Your task to perform on an android device: Open Yahoo.com Image 0: 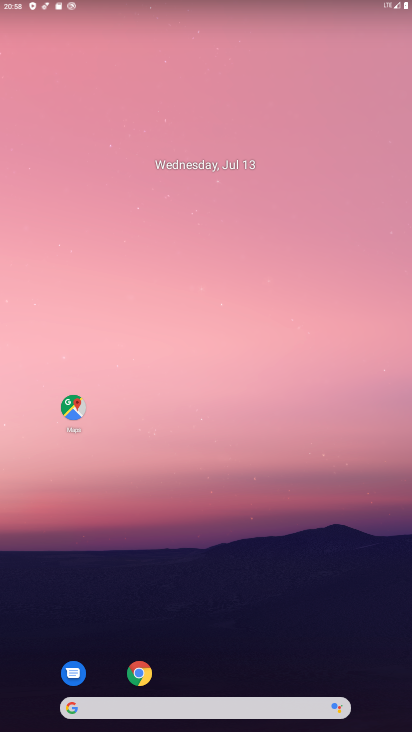
Step 0: drag from (181, 601) to (206, 100)
Your task to perform on an android device: Open Yahoo.com Image 1: 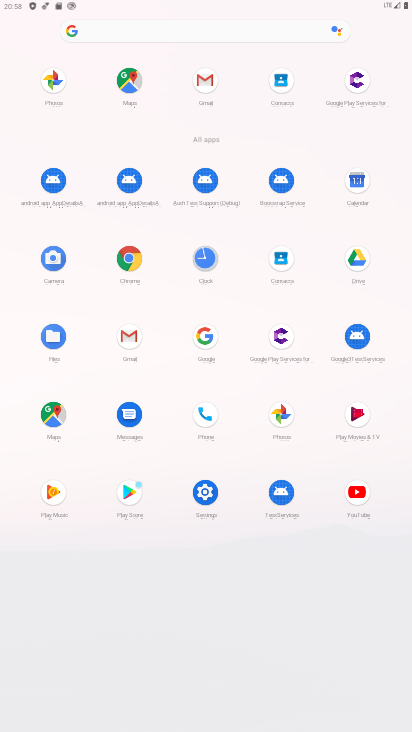
Step 1: drag from (246, 613) to (209, 300)
Your task to perform on an android device: Open Yahoo.com Image 2: 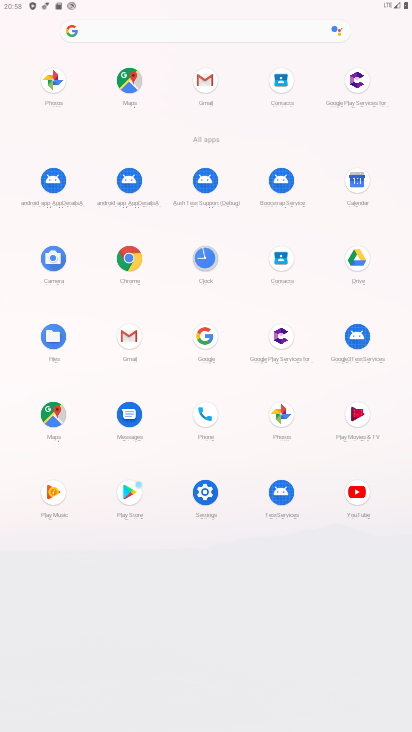
Step 2: drag from (227, 584) to (225, 251)
Your task to perform on an android device: Open Yahoo.com Image 3: 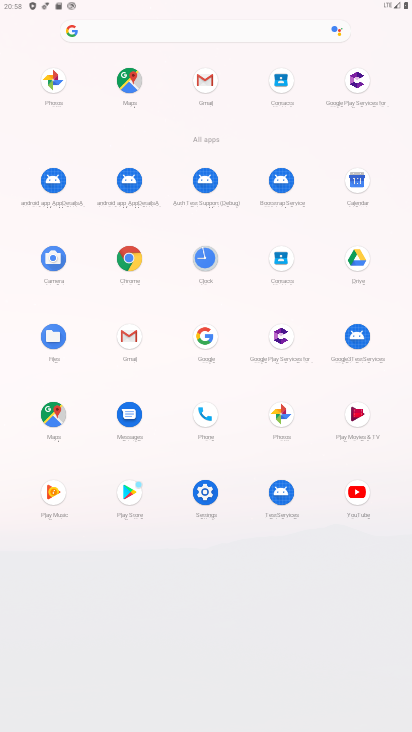
Step 3: click (231, 26)
Your task to perform on an android device: Open Yahoo.com Image 4: 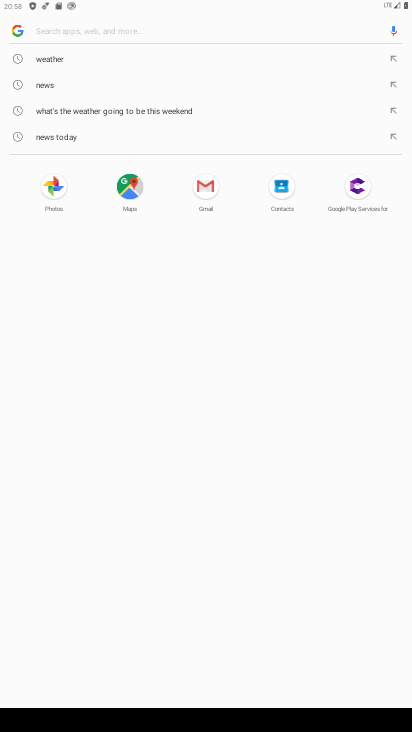
Step 4: click (83, 32)
Your task to perform on an android device: Open Yahoo.com Image 5: 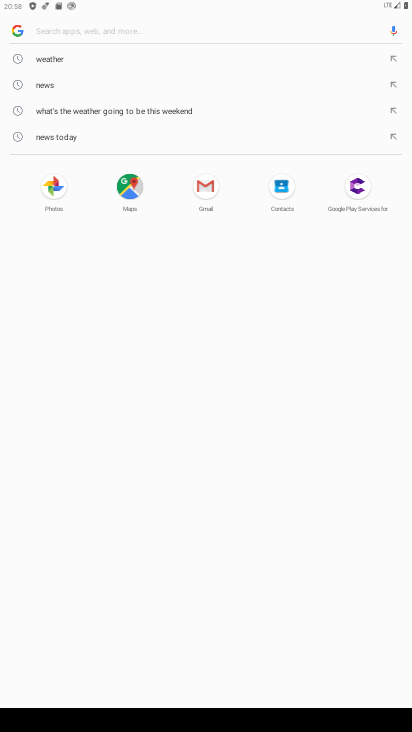
Step 5: type "Yahoo.com"
Your task to perform on an android device: Open Yahoo.com Image 6: 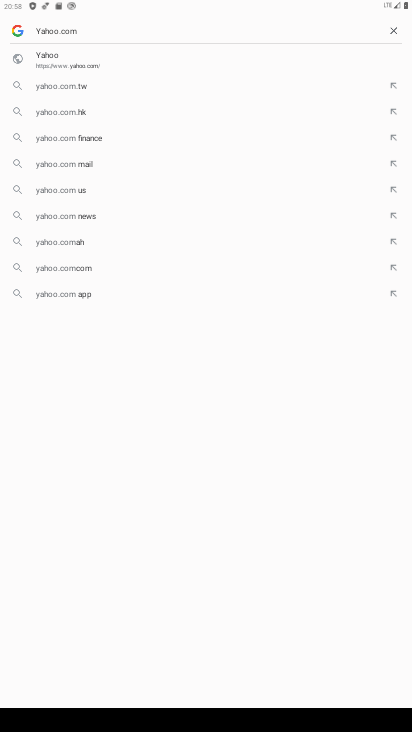
Step 6: click (93, 66)
Your task to perform on an android device: Open Yahoo.com Image 7: 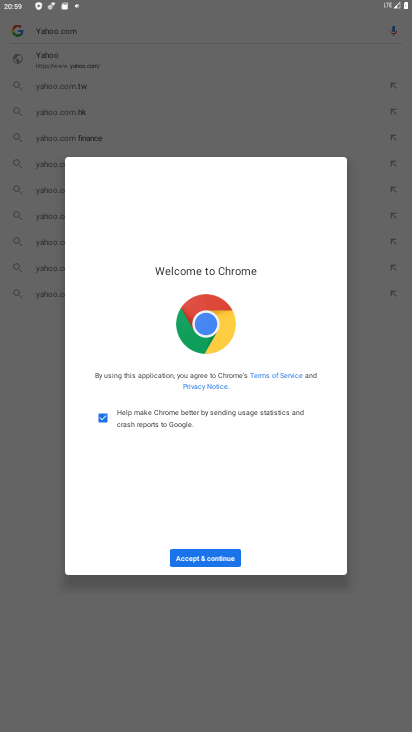
Step 7: drag from (224, 462) to (325, 179)
Your task to perform on an android device: Open Yahoo.com Image 8: 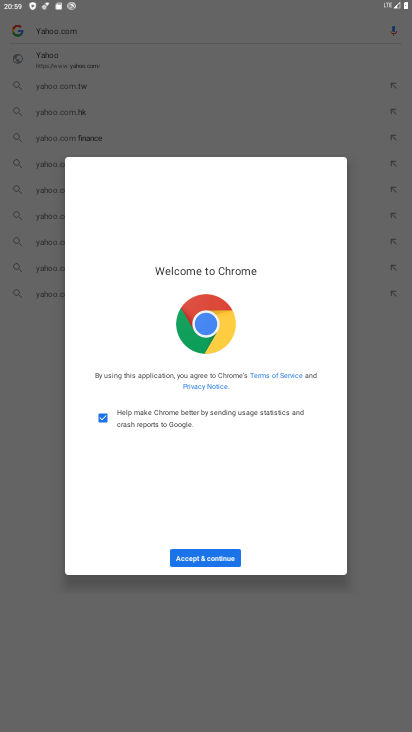
Step 8: drag from (186, 482) to (221, 365)
Your task to perform on an android device: Open Yahoo.com Image 9: 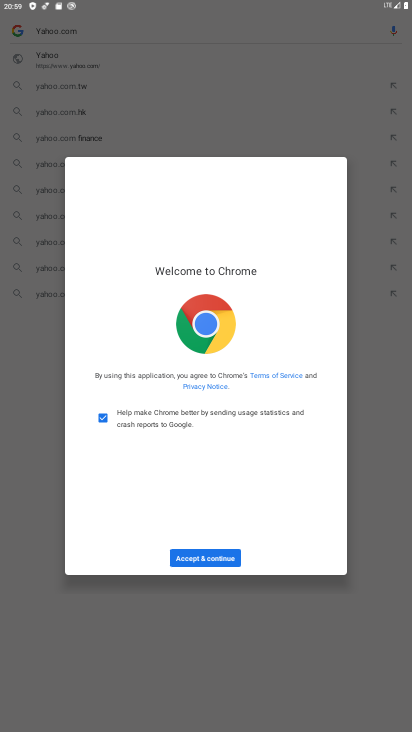
Step 9: click (191, 559)
Your task to perform on an android device: Open Yahoo.com Image 10: 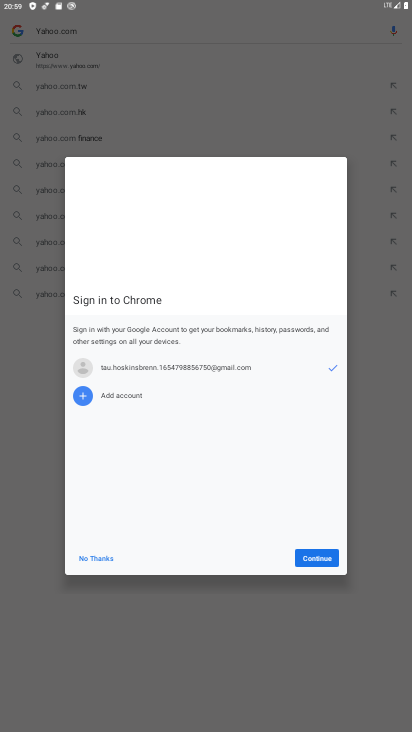
Step 10: click (332, 561)
Your task to perform on an android device: Open Yahoo.com Image 11: 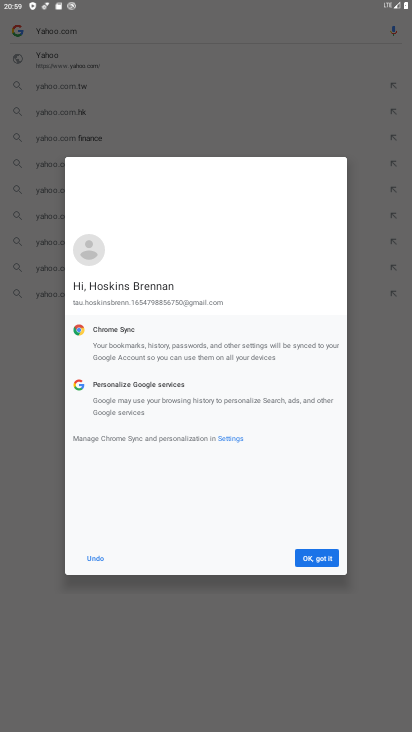
Step 11: click (318, 561)
Your task to perform on an android device: Open Yahoo.com Image 12: 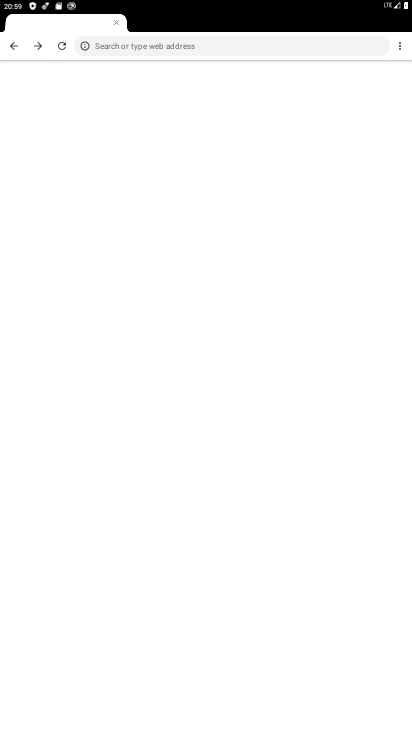
Step 12: drag from (210, 638) to (216, 271)
Your task to perform on an android device: Open Yahoo.com Image 13: 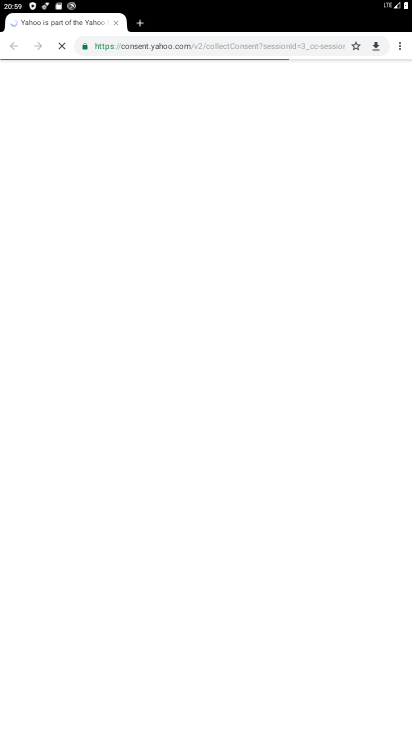
Step 13: drag from (193, 524) to (188, 194)
Your task to perform on an android device: Open Yahoo.com Image 14: 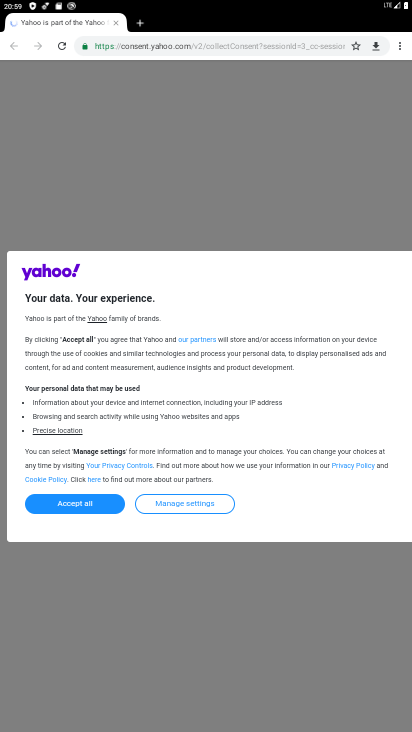
Step 14: click (262, 166)
Your task to perform on an android device: Open Yahoo.com Image 15: 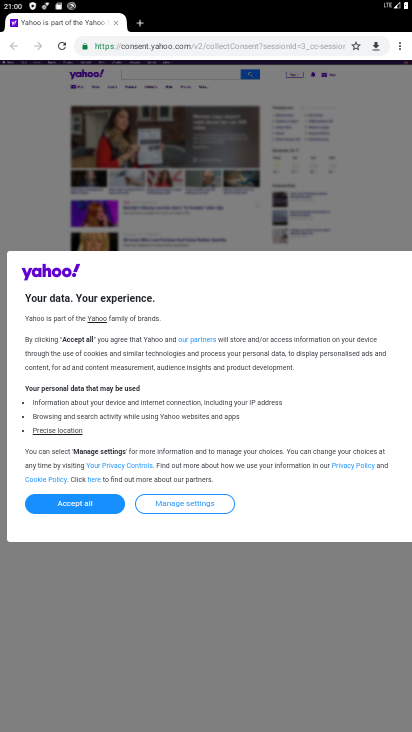
Step 15: click (92, 502)
Your task to perform on an android device: Open Yahoo.com Image 16: 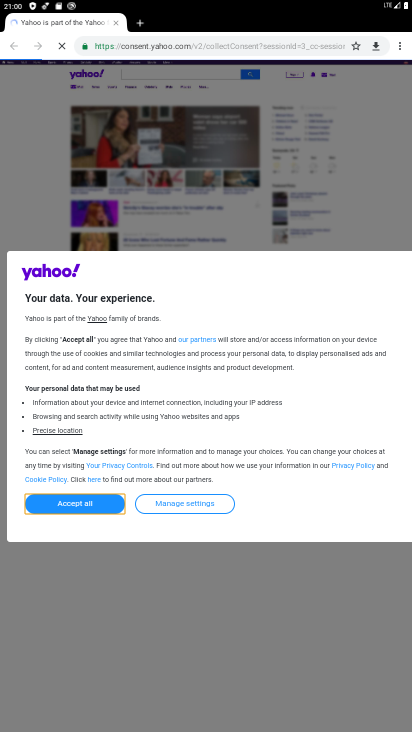
Step 16: click (96, 506)
Your task to perform on an android device: Open Yahoo.com Image 17: 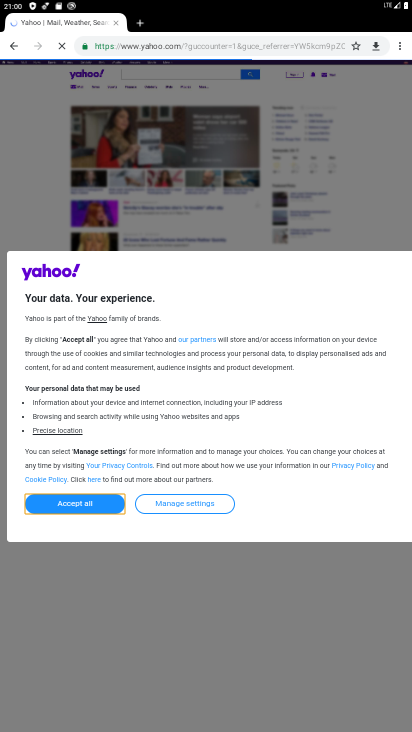
Step 17: task complete